Your task to perform on an android device: Add "acer predator" to the cart on costco.com Image 0: 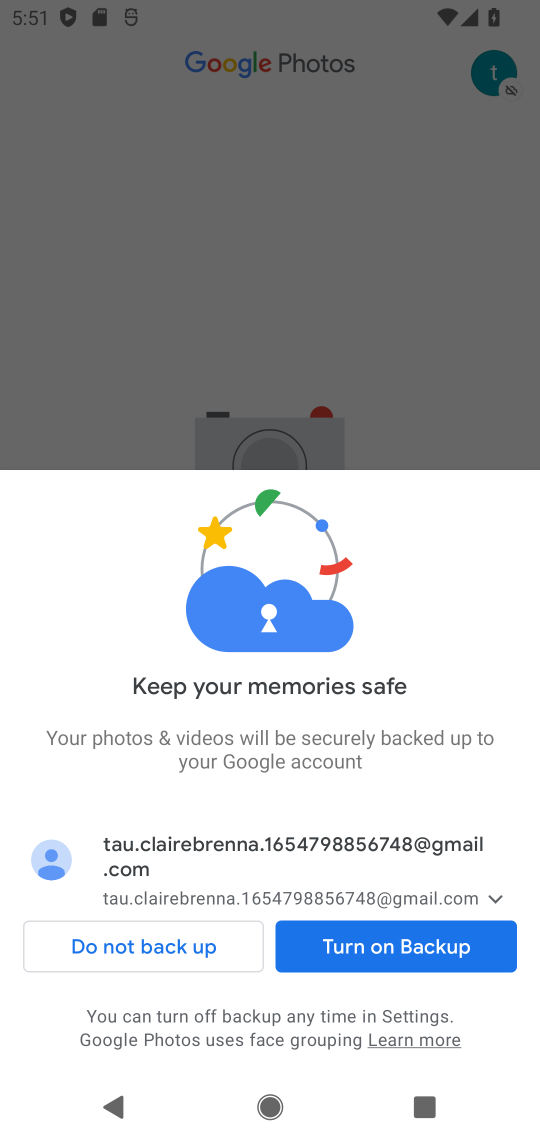
Step 0: press home button
Your task to perform on an android device: Add "acer predator" to the cart on costco.com Image 1: 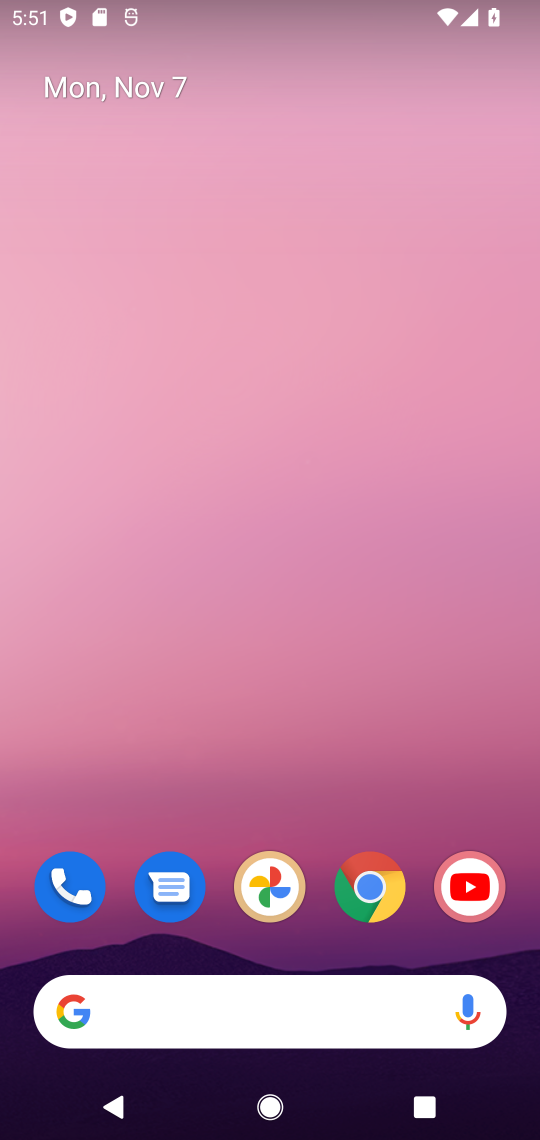
Step 1: click (379, 891)
Your task to perform on an android device: Add "acer predator" to the cart on costco.com Image 2: 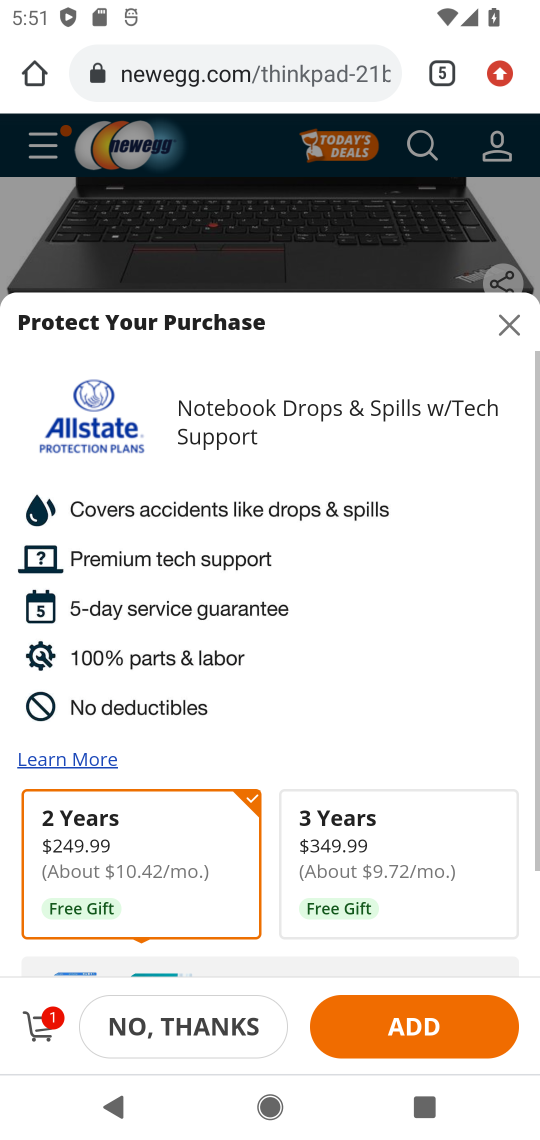
Step 2: click (442, 66)
Your task to perform on an android device: Add "acer predator" to the cart on costco.com Image 3: 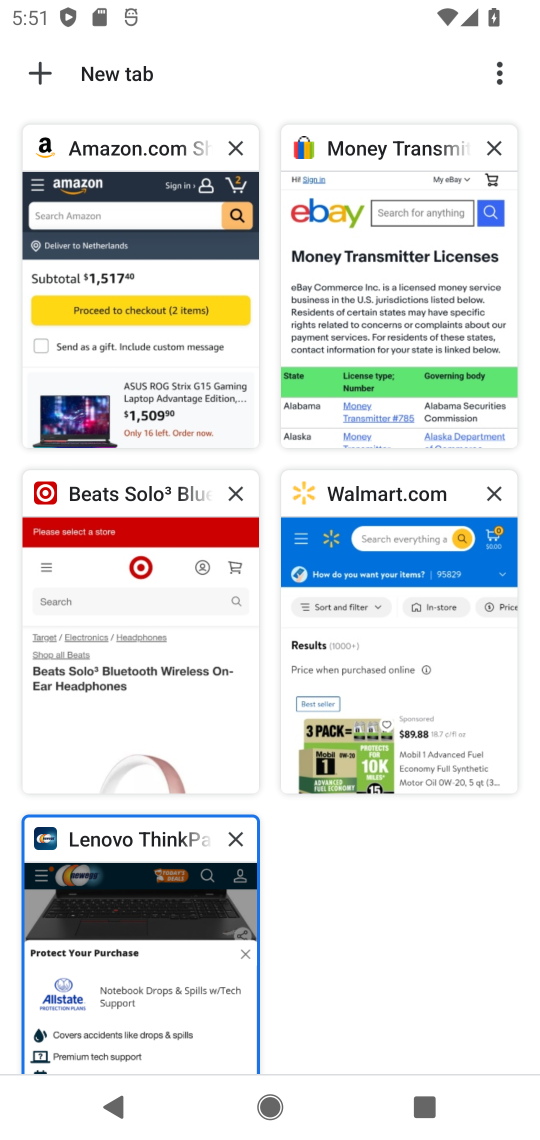
Step 3: click (35, 71)
Your task to perform on an android device: Add "acer predator" to the cart on costco.com Image 4: 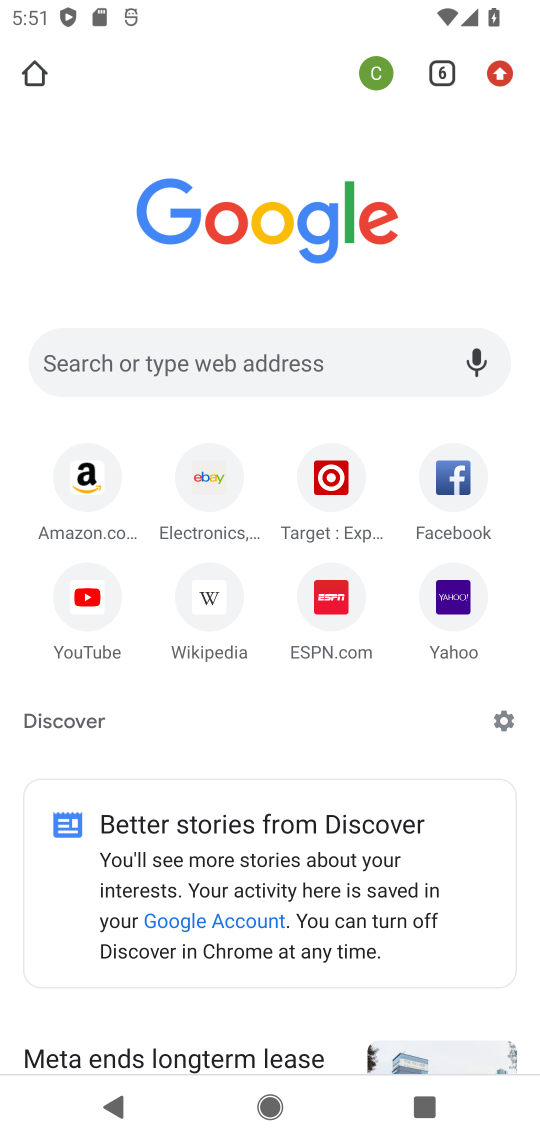
Step 4: click (176, 357)
Your task to perform on an android device: Add "acer predator" to the cart on costco.com Image 5: 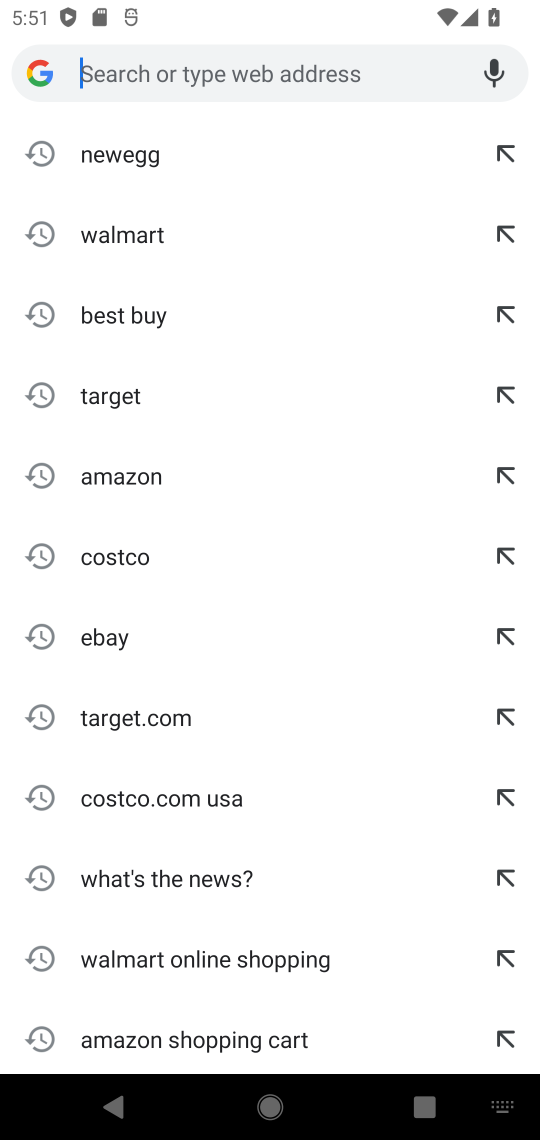
Step 5: click (95, 553)
Your task to perform on an android device: Add "acer predator" to the cart on costco.com Image 6: 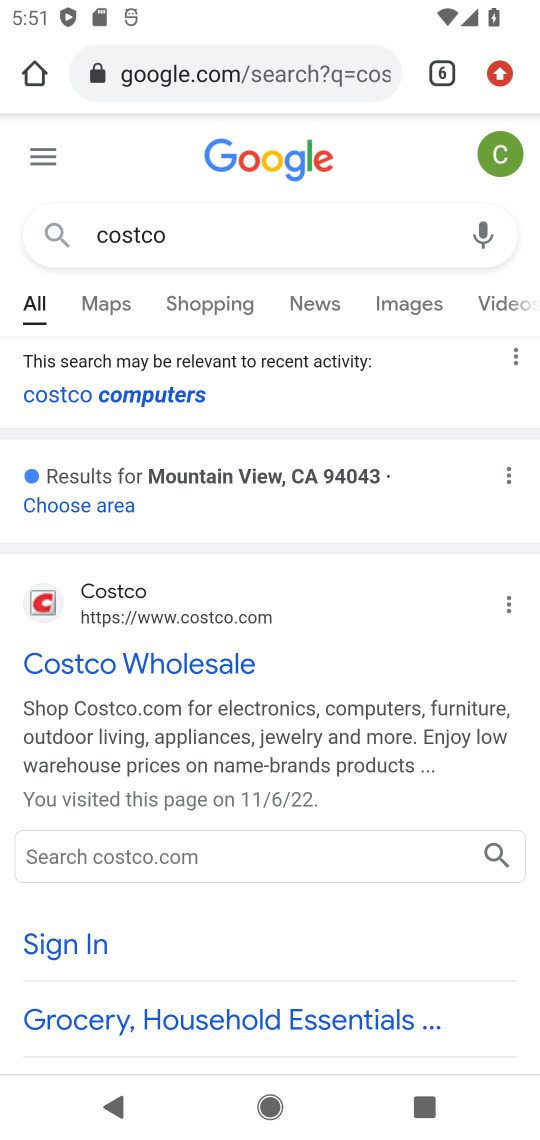
Step 6: click (51, 849)
Your task to perform on an android device: Add "acer predator" to the cart on costco.com Image 7: 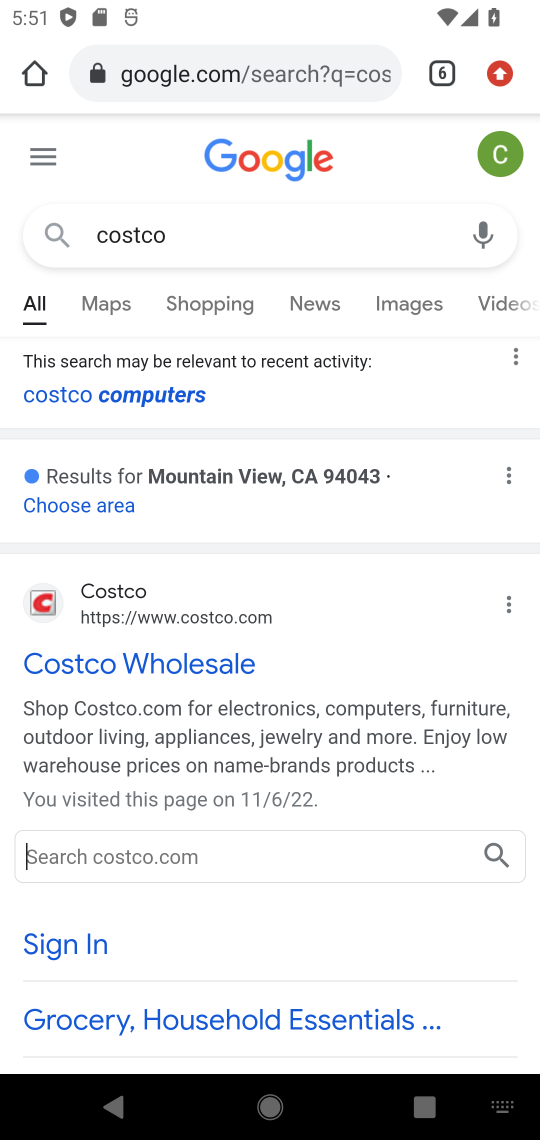
Step 7: type "acer predator"
Your task to perform on an android device: Add "acer predator" to the cart on costco.com Image 8: 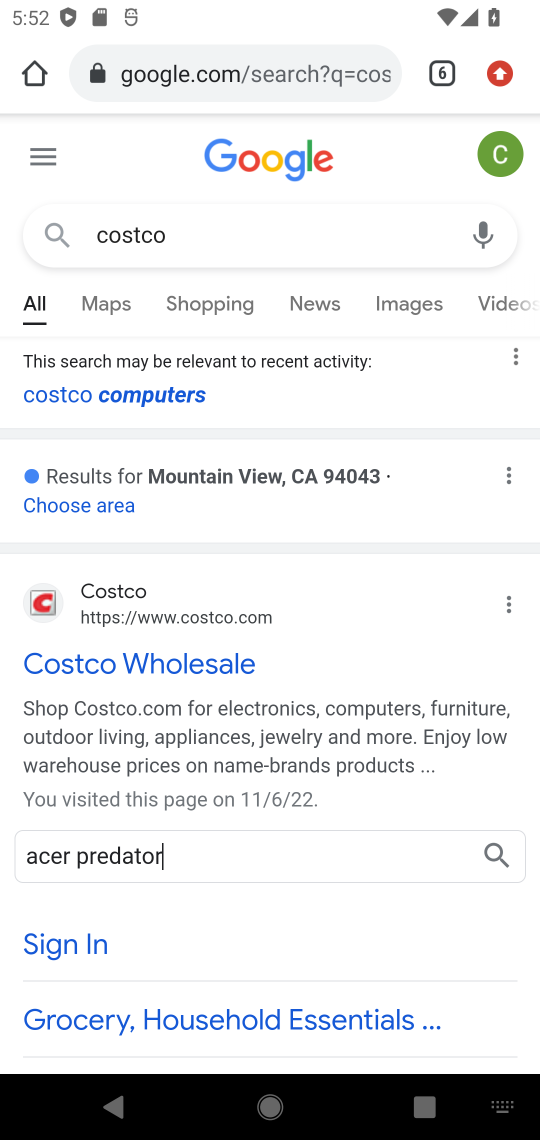
Step 8: click (488, 846)
Your task to perform on an android device: Add "acer predator" to the cart on costco.com Image 9: 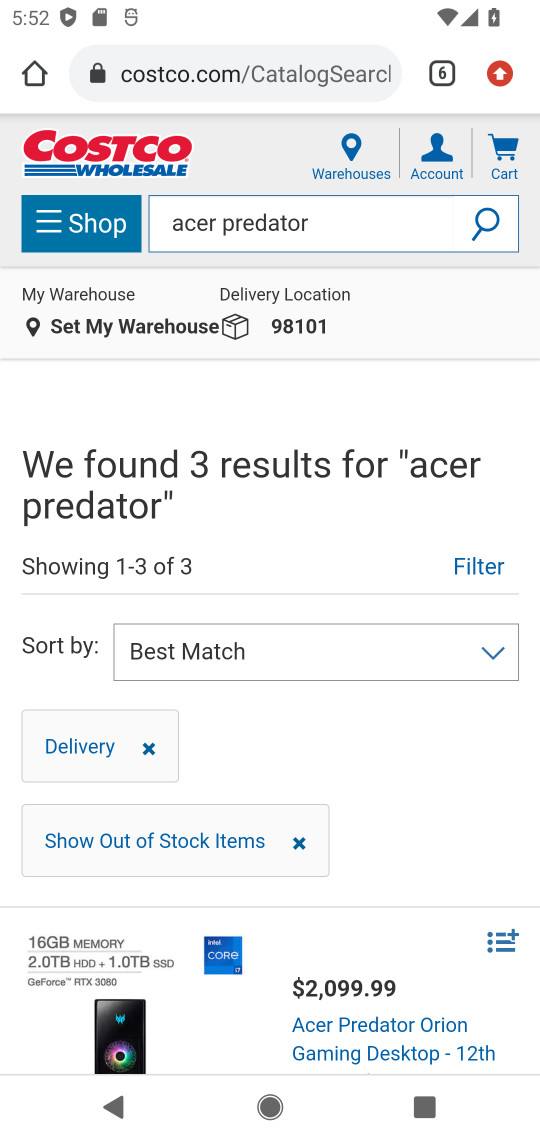
Step 9: drag from (330, 954) to (398, 412)
Your task to perform on an android device: Add "acer predator" to the cart on costco.com Image 10: 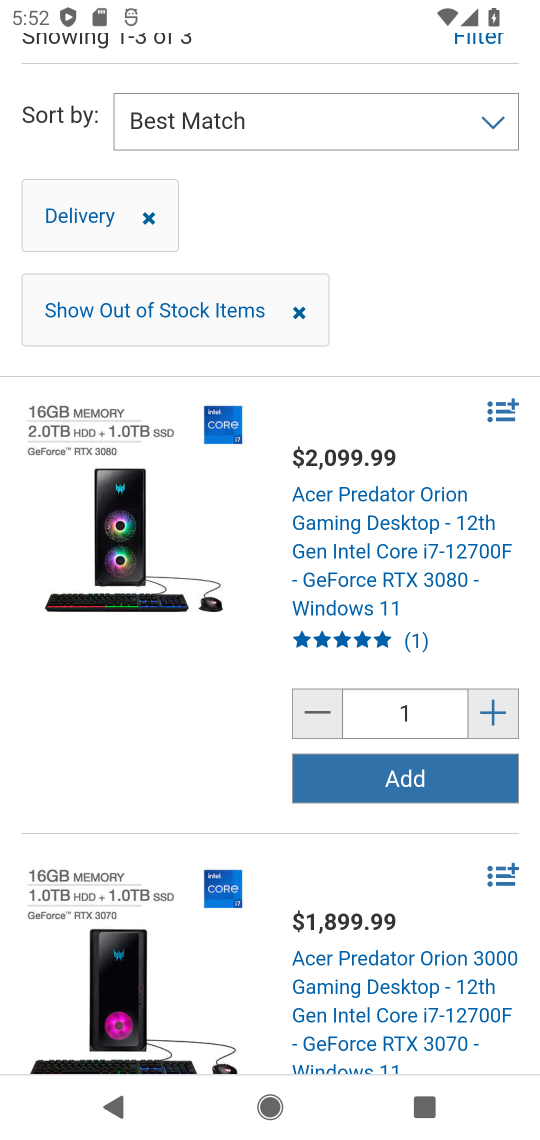
Step 10: click (437, 781)
Your task to perform on an android device: Add "acer predator" to the cart on costco.com Image 11: 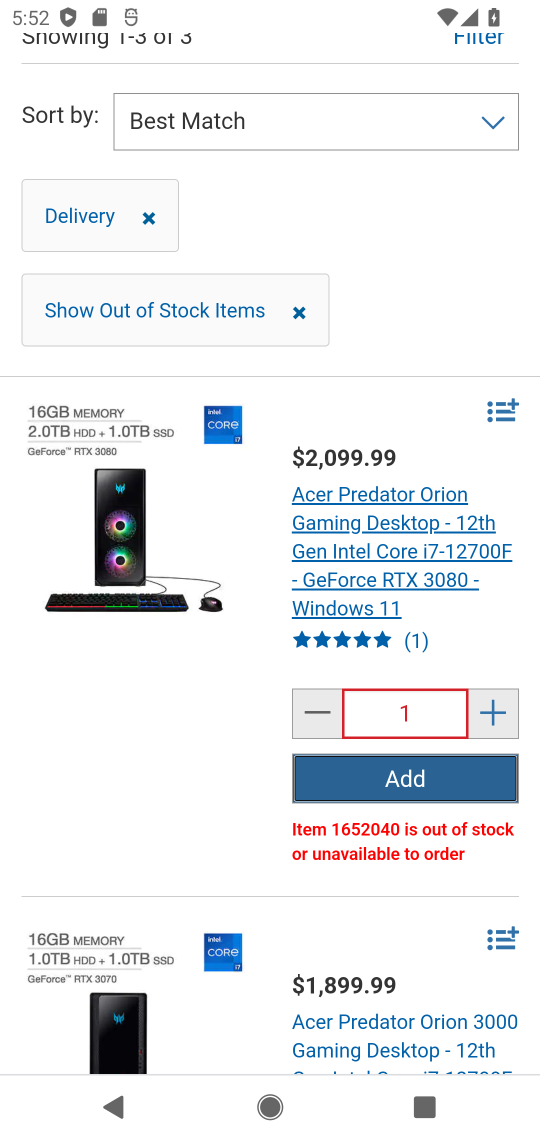
Step 11: drag from (267, 844) to (288, 508)
Your task to perform on an android device: Add "acer predator" to the cart on costco.com Image 12: 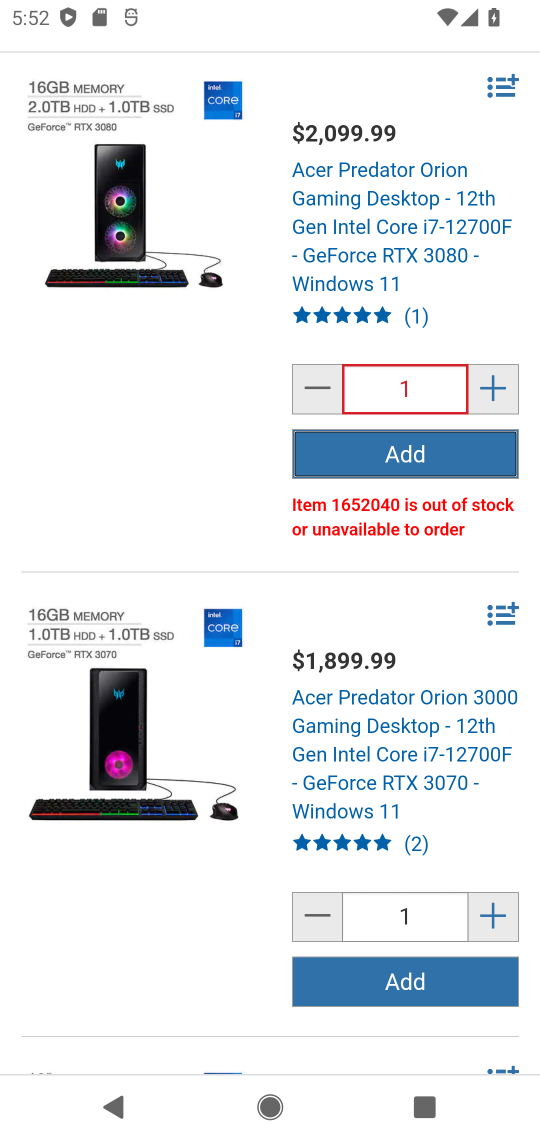
Step 12: click (388, 979)
Your task to perform on an android device: Add "acer predator" to the cart on costco.com Image 13: 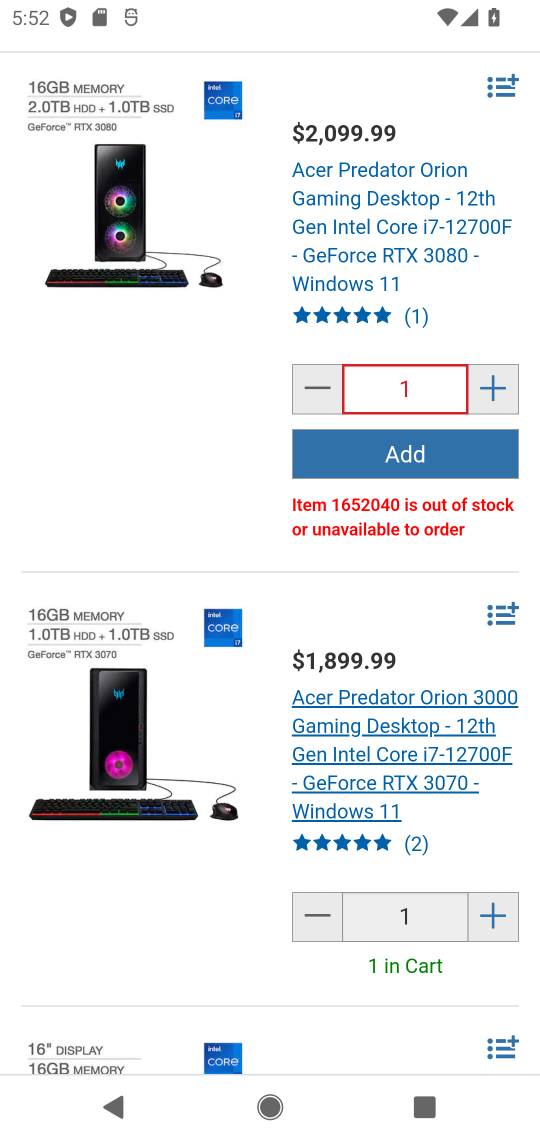
Step 13: task complete